Your task to perform on an android device: Do I have any events today? Image 0: 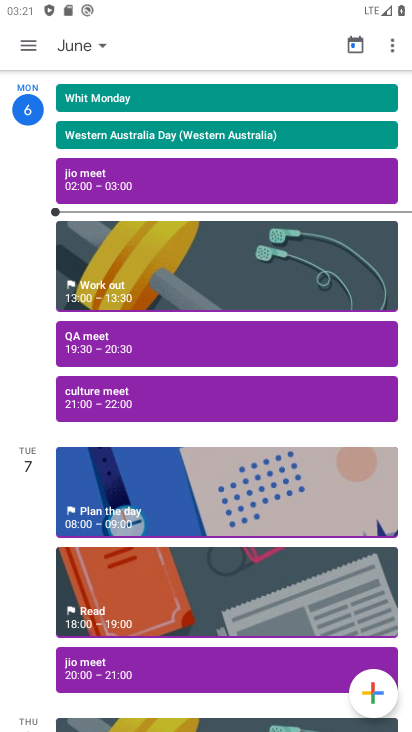
Step 0: press home button
Your task to perform on an android device: Do I have any events today? Image 1: 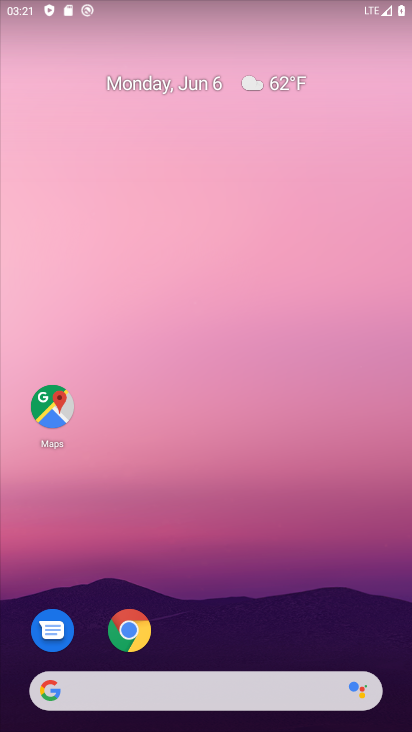
Step 1: drag from (270, 676) to (260, 26)
Your task to perform on an android device: Do I have any events today? Image 2: 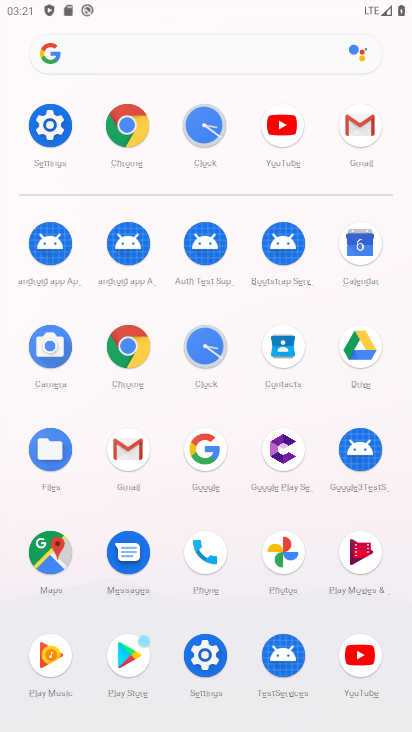
Step 2: click (368, 237)
Your task to perform on an android device: Do I have any events today? Image 3: 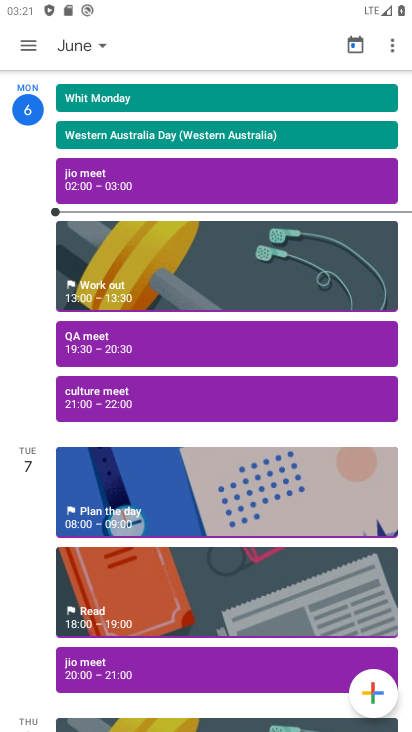
Step 3: task complete